Your task to perform on an android device: turn on javascript in the chrome app Image 0: 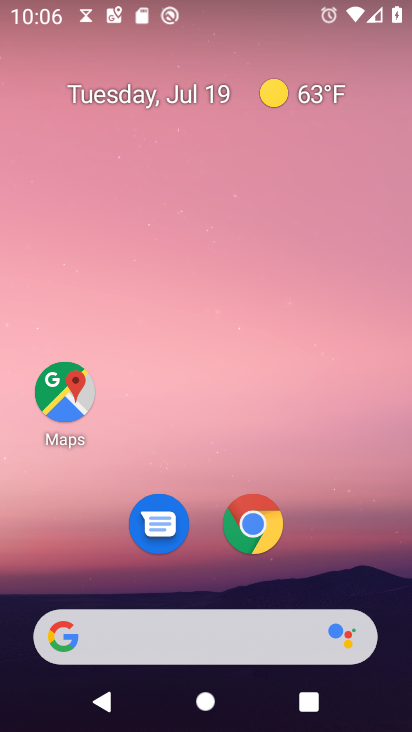
Step 0: press home button
Your task to perform on an android device: turn on javascript in the chrome app Image 1: 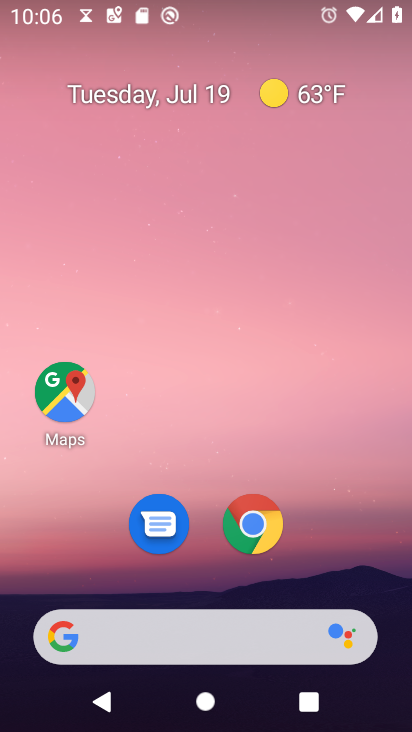
Step 1: click (256, 524)
Your task to perform on an android device: turn on javascript in the chrome app Image 2: 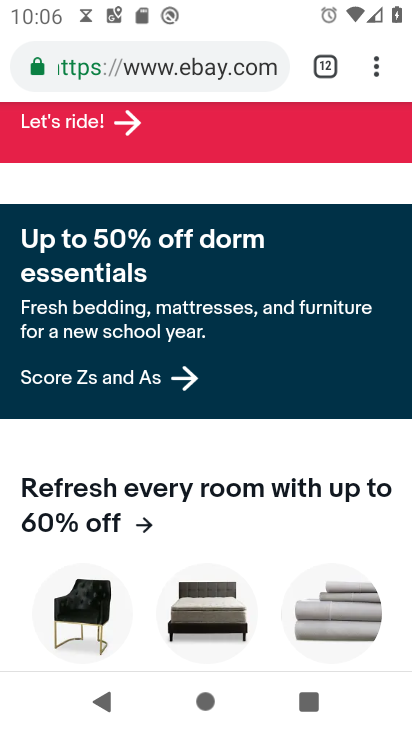
Step 2: drag from (377, 59) to (228, 524)
Your task to perform on an android device: turn on javascript in the chrome app Image 3: 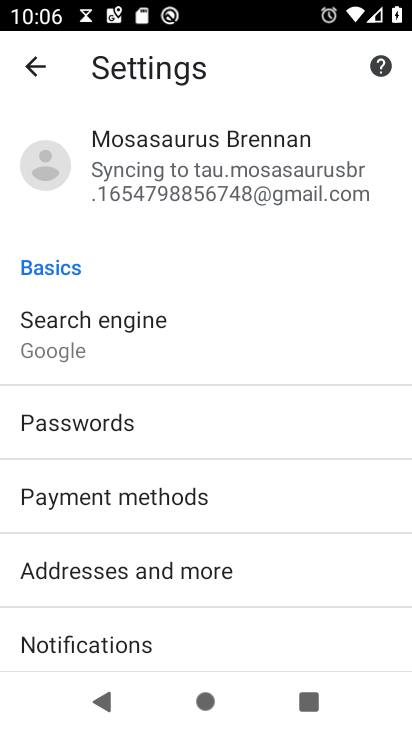
Step 3: drag from (311, 282) to (337, 195)
Your task to perform on an android device: turn on javascript in the chrome app Image 4: 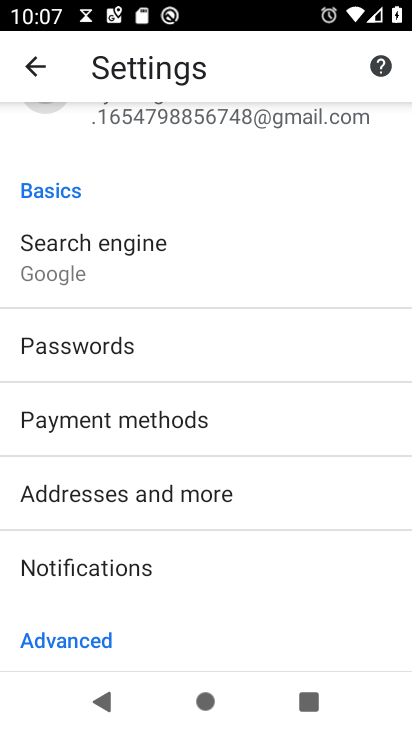
Step 4: drag from (188, 630) to (377, 97)
Your task to perform on an android device: turn on javascript in the chrome app Image 5: 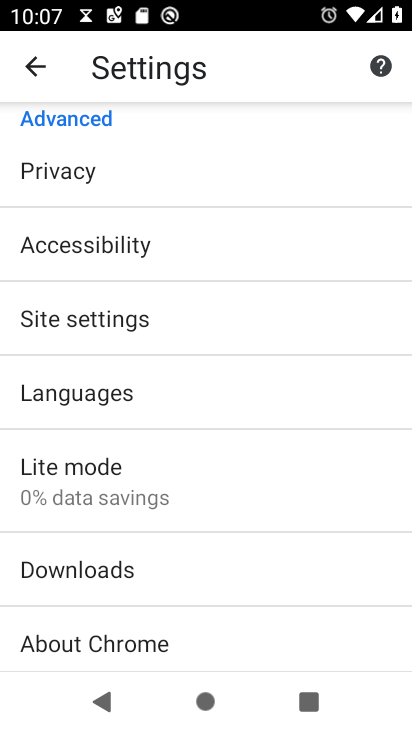
Step 5: click (118, 327)
Your task to perform on an android device: turn on javascript in the chrome app Image 6: 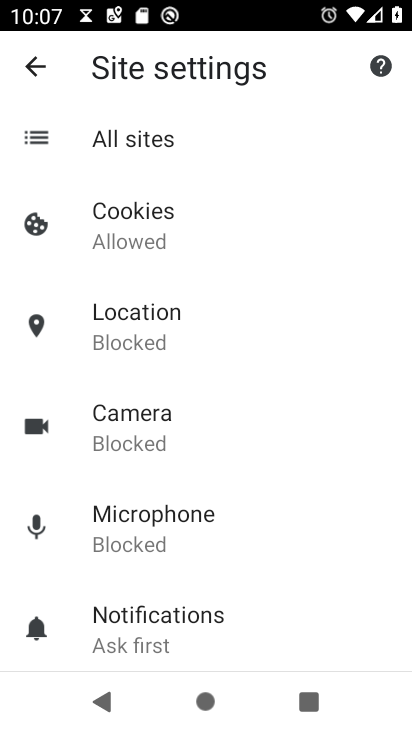
Step 6: drag from (224, 584) to (373, 163)
Your task to perform on an android device: turn on javascript in the chrome app Image 7: 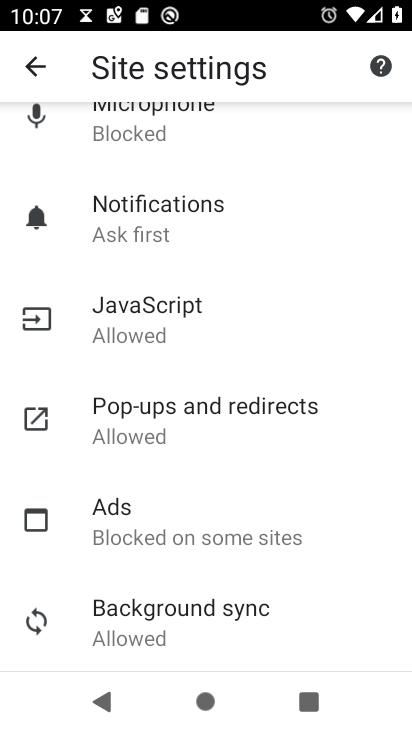
Step 7: click (159, 325)
Your task to perform on an android device: turn on javascript in the chrome app Image 8: 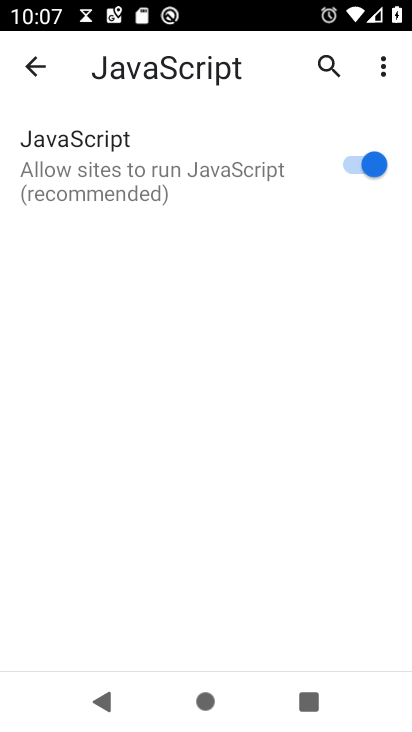
Step 8: task complete